Your task to perform on an android device: turn off smart reply in the gmail app Image 0: 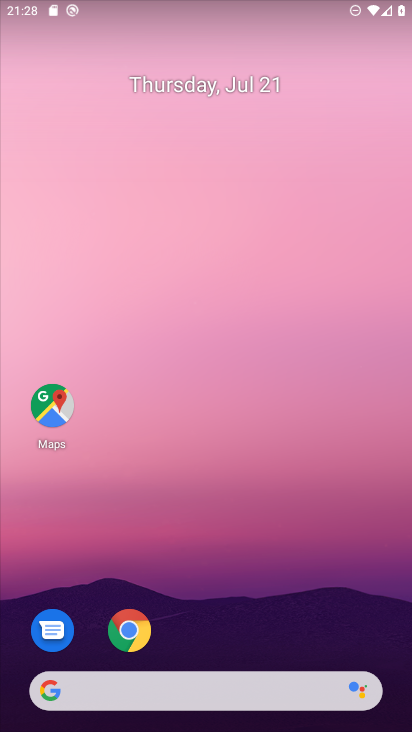
Step 0: drag from (329, 576) to (285, 21)
Your task to perform on an android device: turn off smart reply in the gmail app Image 1: 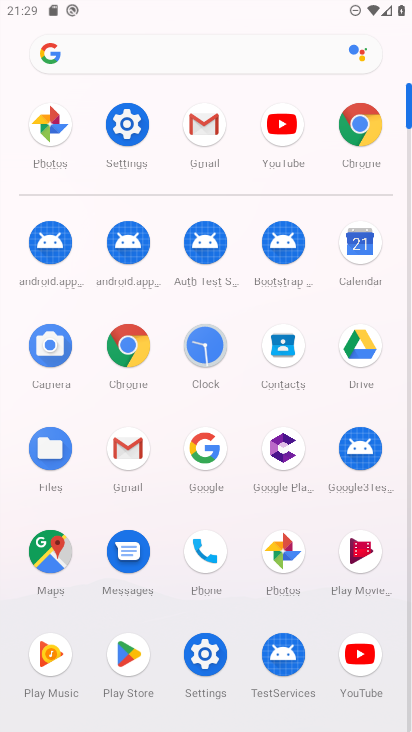
Step 1: click (130, 439)
Your task to perform on an android device: turn off smart reply in the gmail app Image 2: 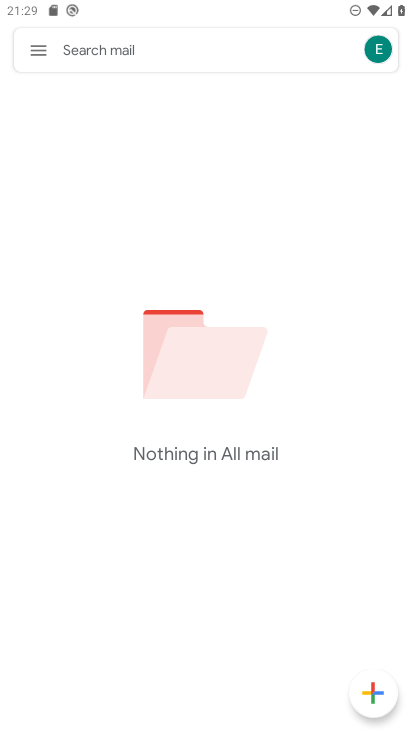
Step 2: click (37, 46)
Your task to perform on an android device: turn off smart reply in the gmail app Image 3: 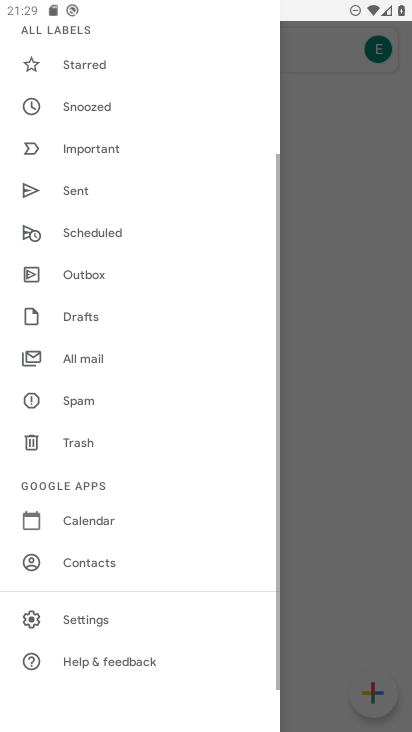
Step 3: click (94, 631)
Your task to perform on an android device: turn off smart reply in the gmail app Image 4: 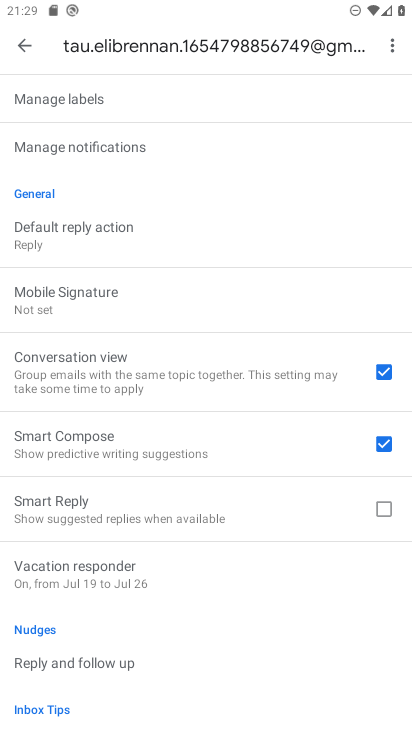
Step 4: task complete